Your task to perform on an android device: Go to Google maps Image 0: 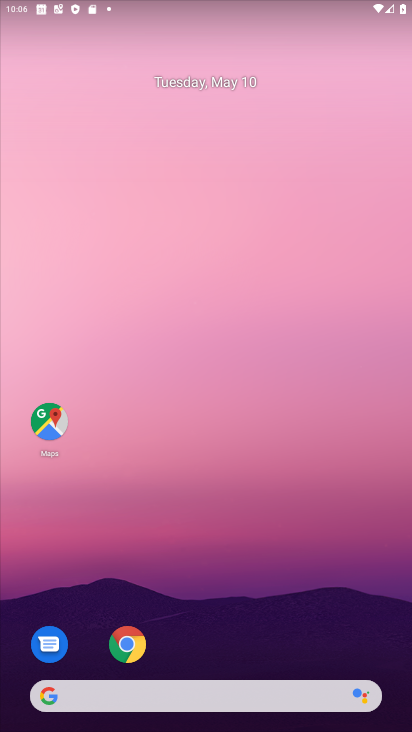
Step 0: drag from (220, 649) to (227, 248)
Your task to perform on an android device: Go to Google maps Image 1: 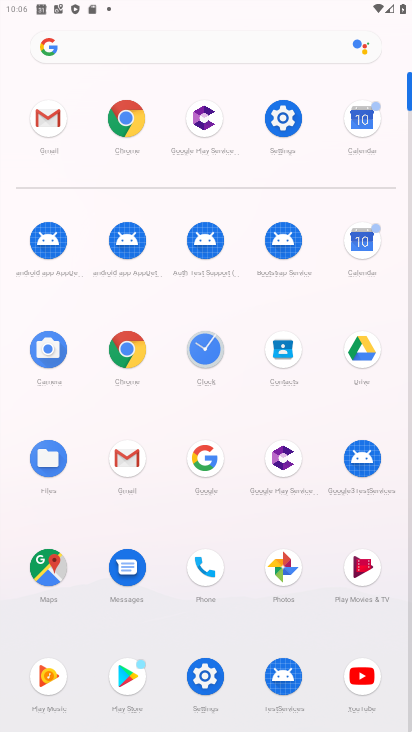
Step 1: click (44, 560)
Your task to perform on an android device: Go to Google maps Image 2: 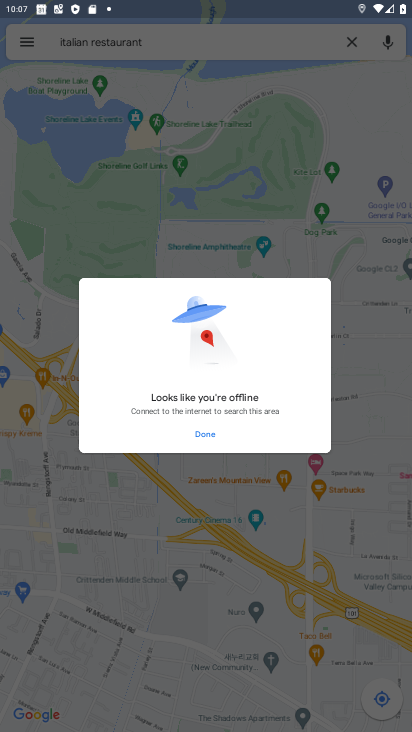
Step 2: task complete